Your task to perform on an android device: empty trash in the gmail app Image 0: 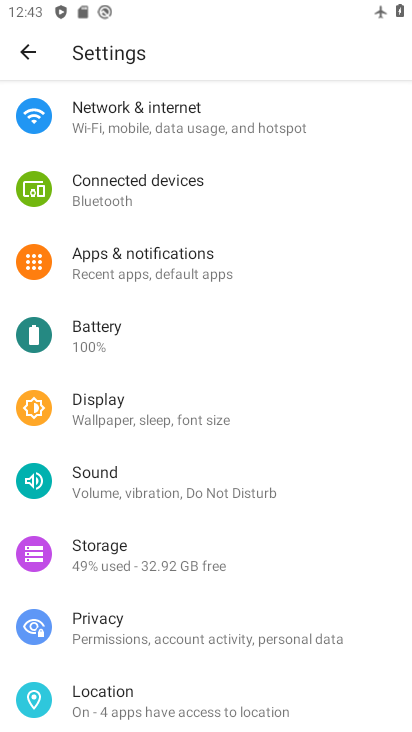
Step 0: press home button
Your task to perform on an android device: empty trash in the gmail app Image 1: 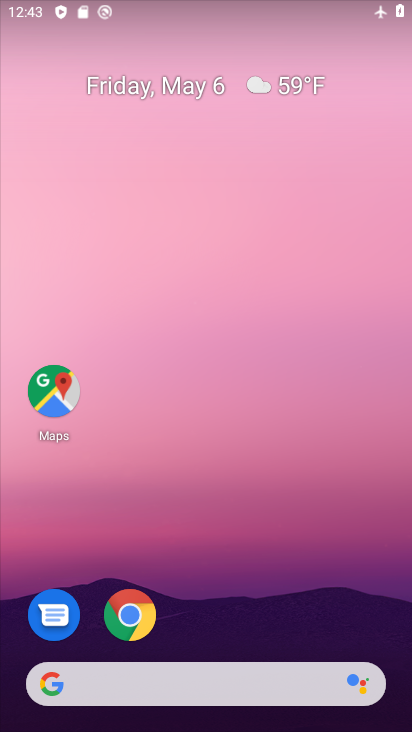
Step 1: drag from (235, 527) to (252, 6)
Your task to perform on an android device: empty trash in the gmail app Image 2: 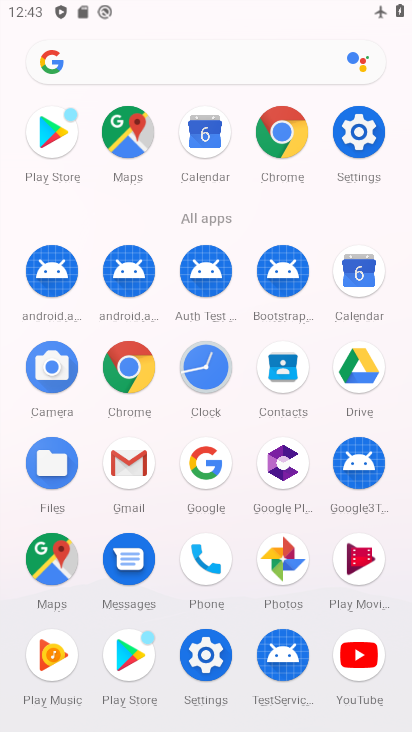
Step 2: click (133, 463)
Your task to perform on an android device: empty trash in the gmail app Image 3: 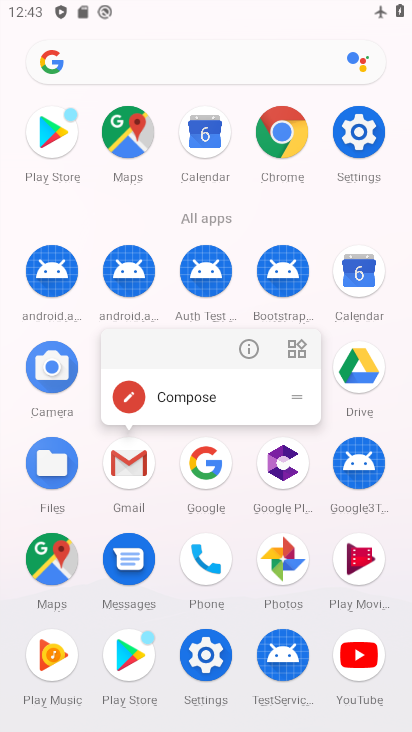
Step 3: click (133, 463)
Your task to perform on an android device: empty trash in the gmail app Image 4: 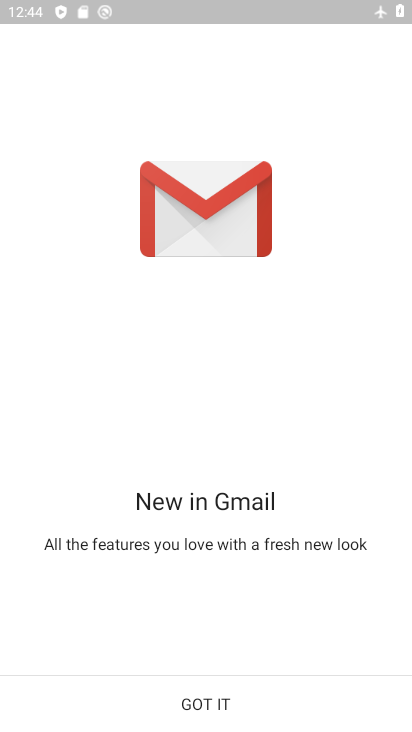
Step 4: click (257, 703)
Your task to perform on an android device: empty trash in the gmail app Image 5: 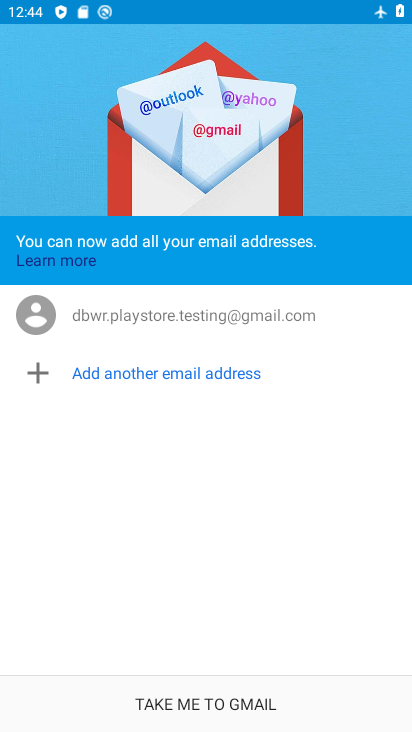
Step 5: click (257, 703)
Your task to perform on an android device: empty trash in the gmail app Image 6: 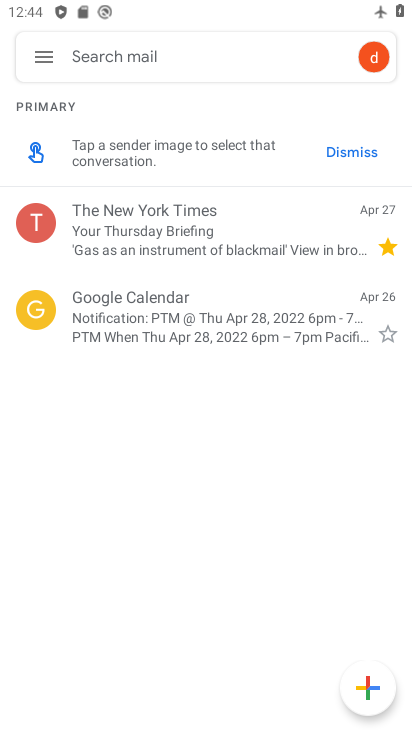
Step 6: click (43, 57)
Your task to perform on an android device: empty trash in the gmail app Image 7: 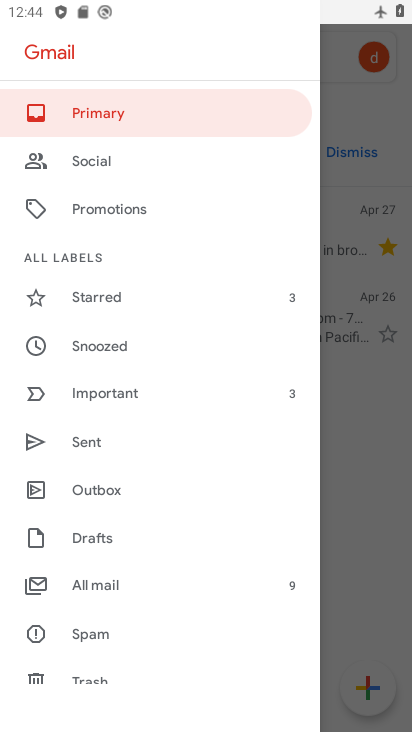
Step 7: drag from (160, 486) to (191, 291)
Your task to perform on an android device: empty trash in the gmail app Image 8: 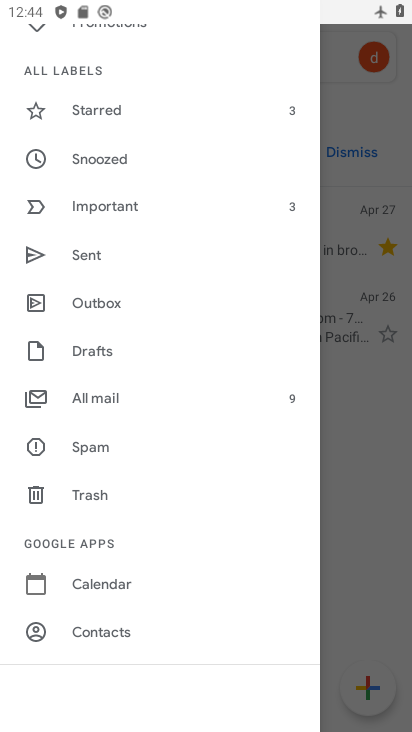
Step 8: click (100, 493)
Your task to perform on an android device: empty trash in the gmail app Image 9: 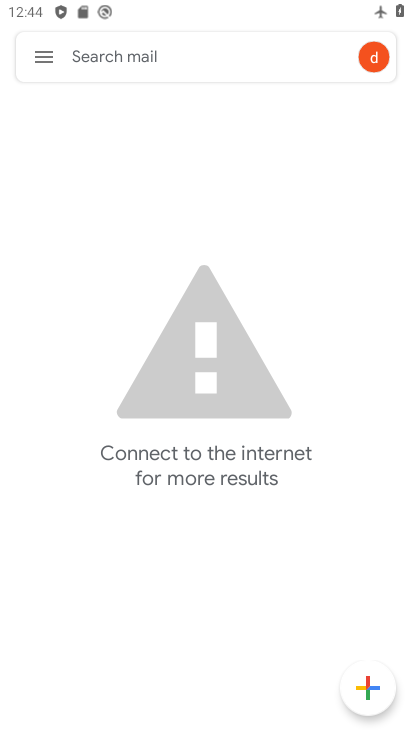
Step 9: task complete